Your task to perform on an android device: check data usage Image 0: 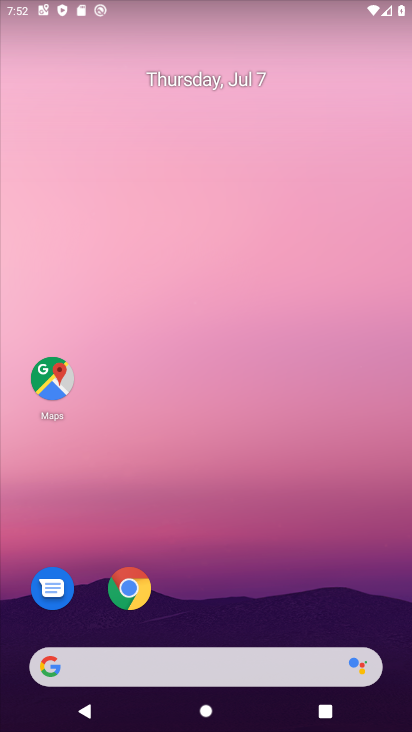
Step 0: drag from (179, 607) to (180, 242)
Your task to perform on an android device: check data usage Image 1: 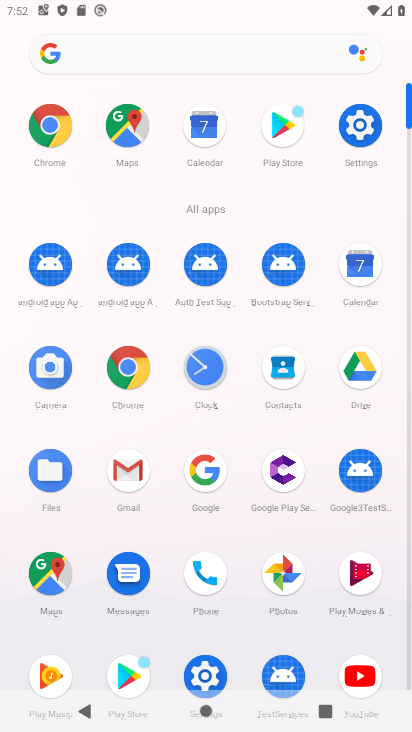
Step 1: click (369, 128)
Your task to perform on an android device: check data usage Image 2: 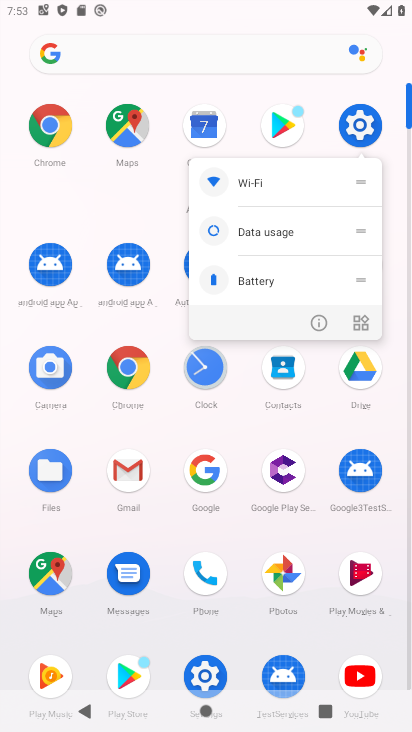
Step 2: click (287, 228)
Your task to perform on an android device: check data usage Image 3: 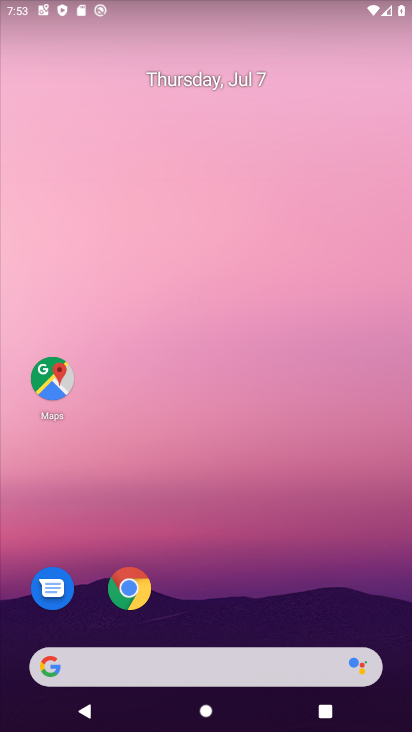
Step 3: drag from (216, 501) to (218, 7)
Your task to perform on an android device: check data usage Image 4: 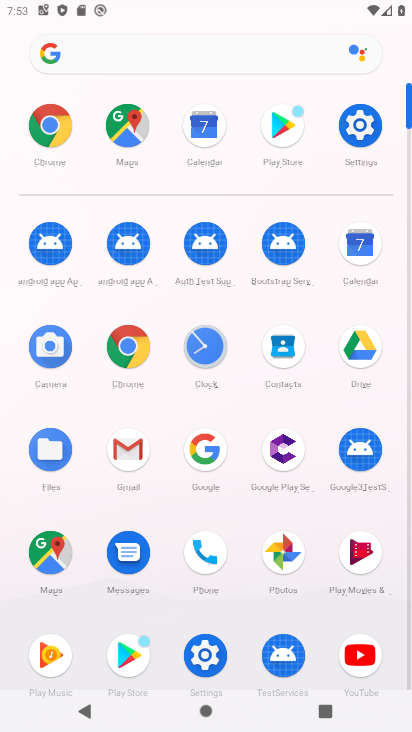
Step 4: click (351, 134)
Your task to perform on an android device: check data usage Image 5: 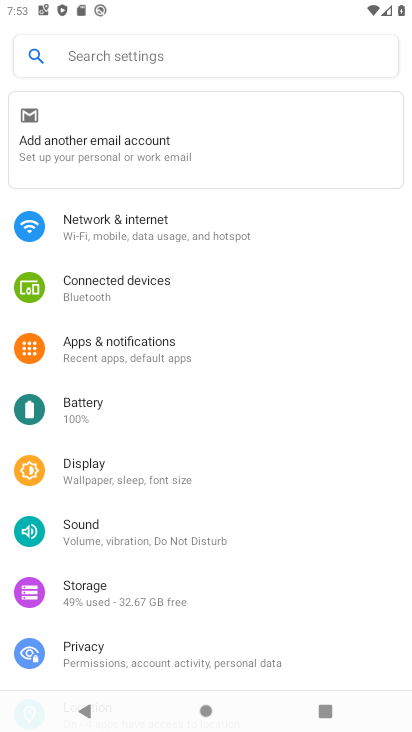
Step 5: click (151, 207)
Your task to perform on an android device: check data usage Image 6: 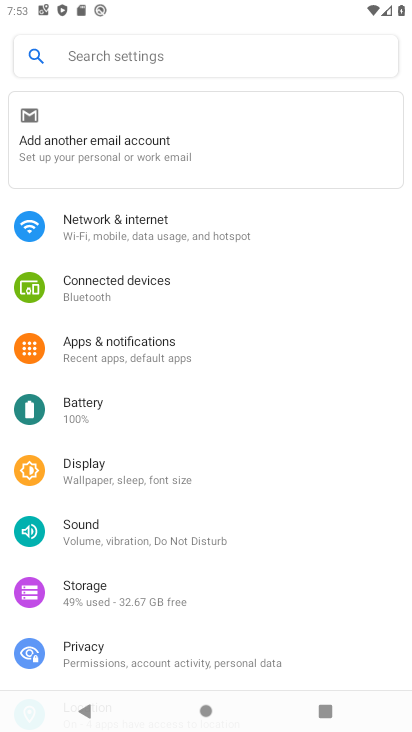
Step 6: click (151, 207)
Your task to perform on an android device: check data usage Image 7: 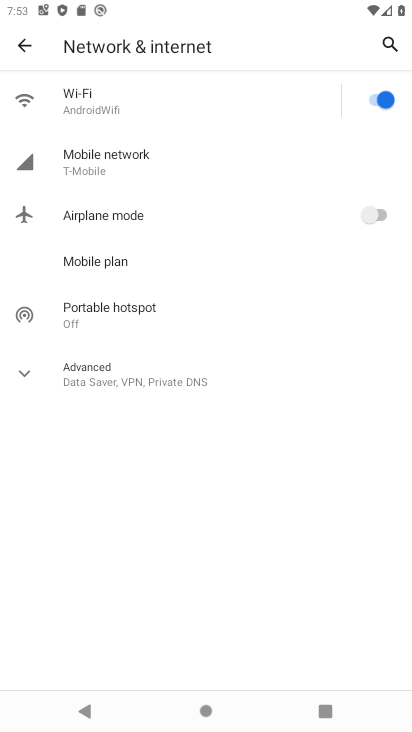
Step 7: click (108, 172)
Your task to perform on an android device: check data usage Image 8: 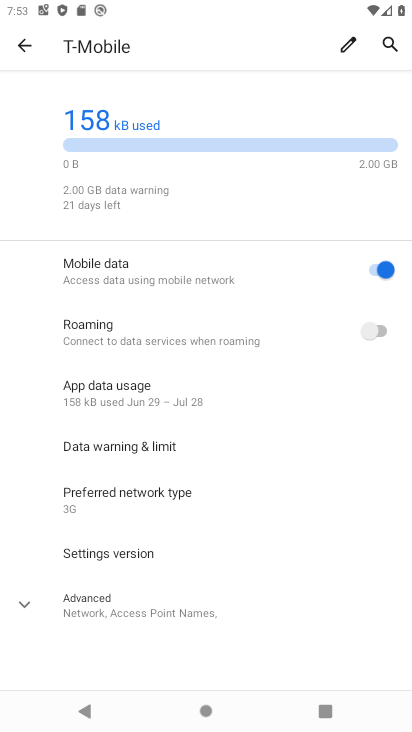
Step 8: click (157, 405)
Your task to perform on an android device: check data usage Image 9: 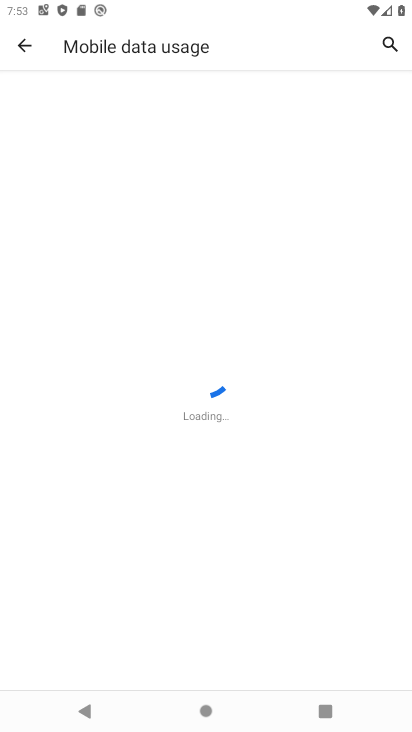
Step 9: task complete